Your task to perform on an android device: toggle notifications settings in the gmail app Image 0: 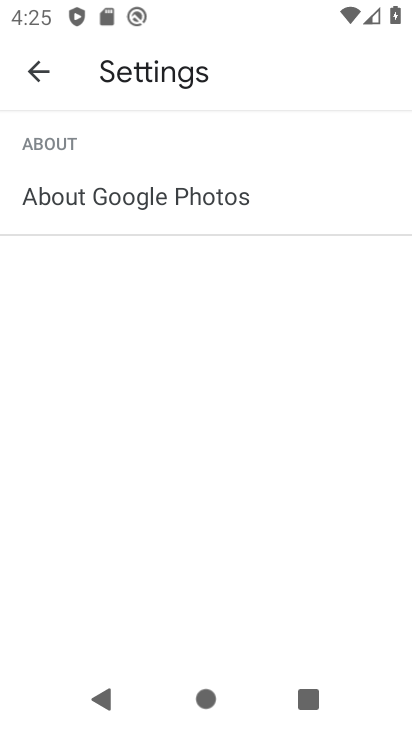
Step 0: press home button
Your task to perform on an android device: toggle notifications settings in the gmail app Image 1: 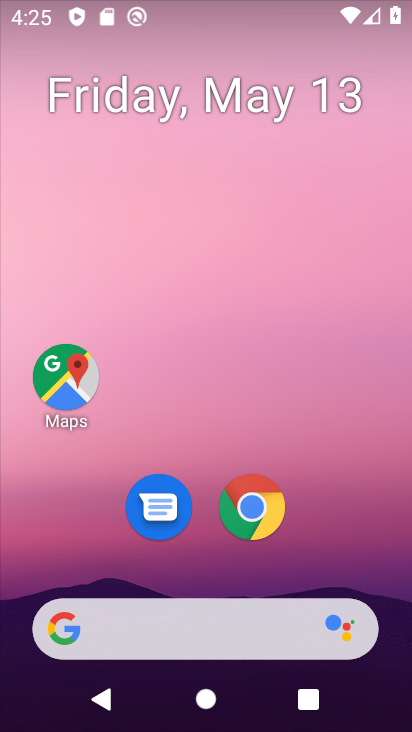
Step 1: drag from (332, 555) to (259, 127)
Your task to perform on an android device: toggle notifications settings in the gmail app Image 2: 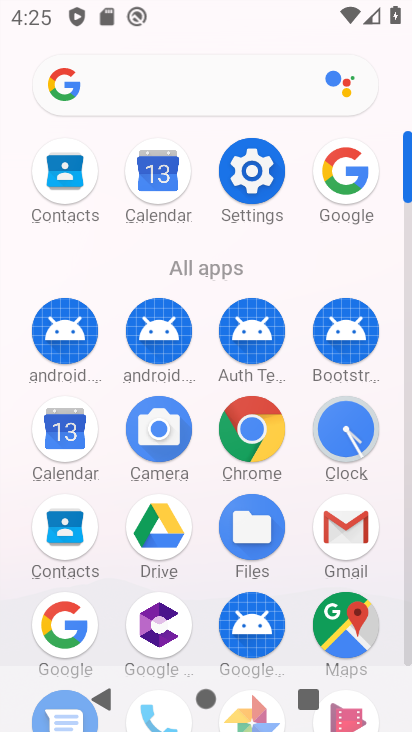
Step 2: click (347, 530)
Your task to perform on an android device: toggle notifications settings in the gmail app Image 3: 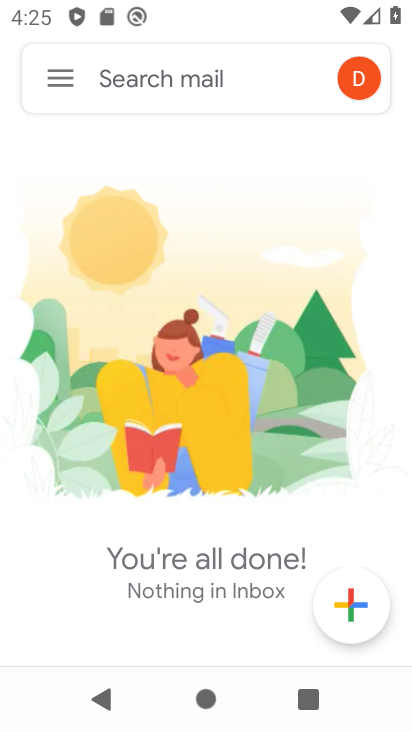
Step 3: click (63, 83)
Your task to perform on an android device: toggle notifications settings in the gmail app Image 4: 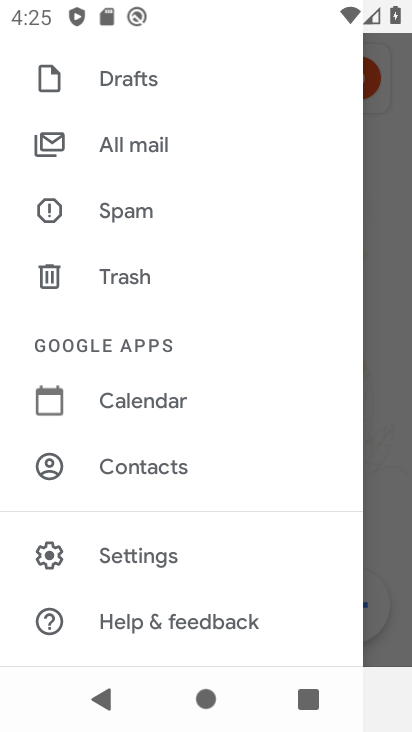
Step 4: click (169, 549)
Your task to perform on an android device: toggle notifications settings in the gmail app Image 5: 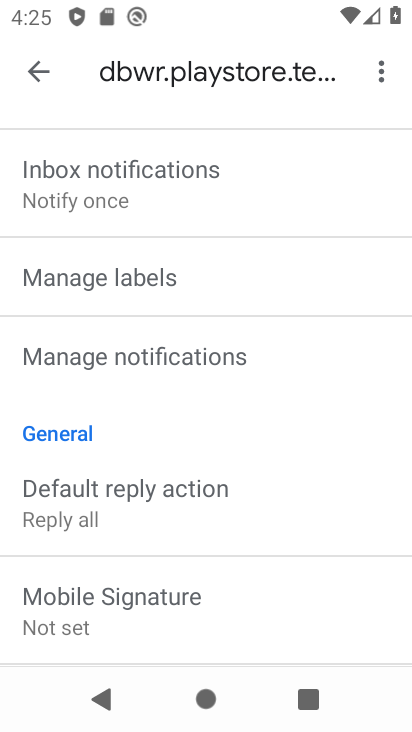
Step 5: click (146, 366)
Your task to perform on an android device: toggle notifications settings in the gmail app Image 6: 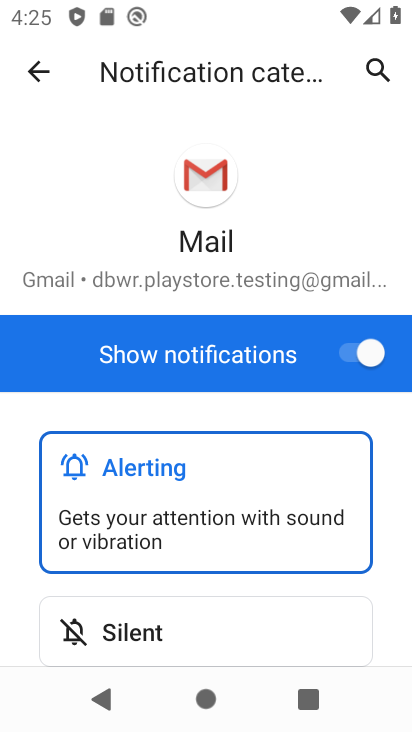
Step 6: click (369, 352)
Your task to perform on an android device: toggle notifications settings in the gmail app Image 7: 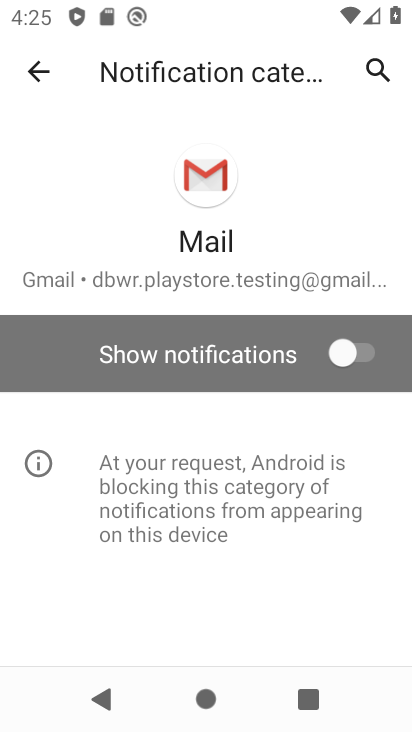
Step 7: task complete